Your task to perform on an android device: turn pop-ups off in chrome Image 0: 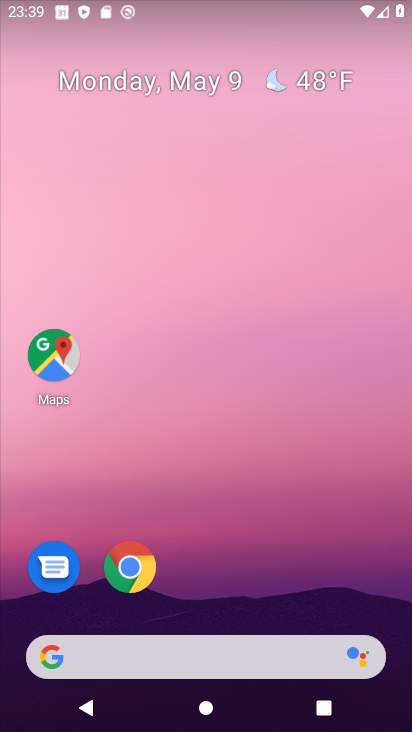
Step 0: click (128, 565)
Your task to perform on an android device: turn pop-ups off in chrome Image 1: 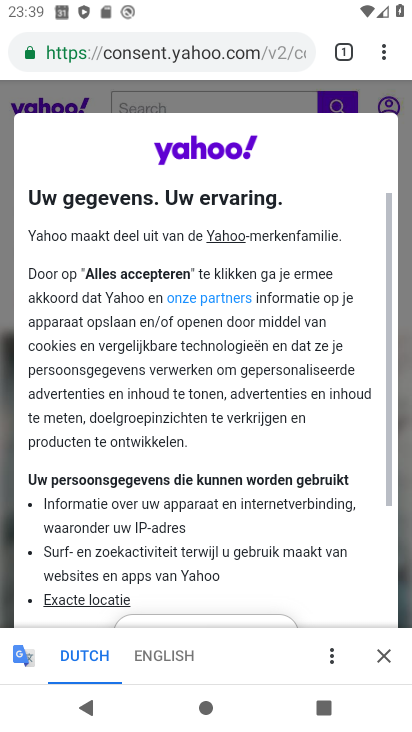
Step 1: click (385, 54)
Your task to perform on an android device: turn pop-ups off in chrome Image 2: 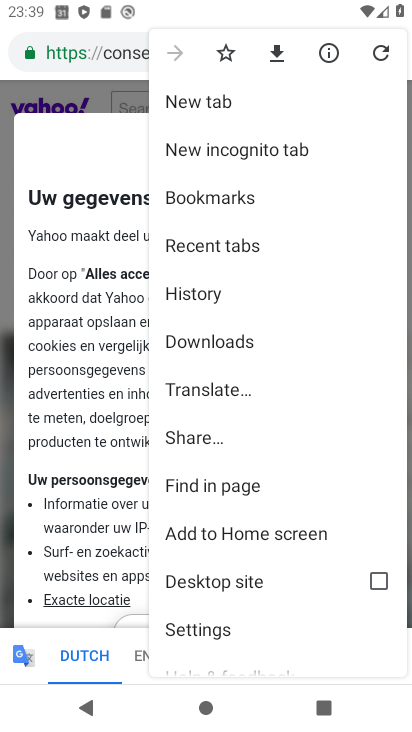
Step 2: click (190, 627)
Your task to perform on an android device: turn pop-ups off in chrome Image 3: 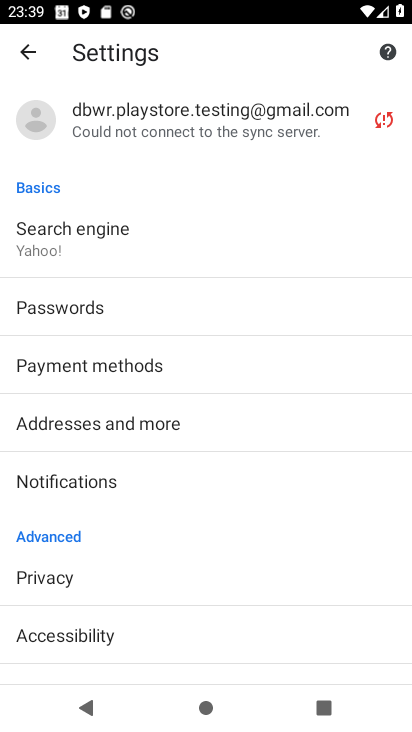
Step 3: drag from (153, 456) to (187, 349)
Your task to perform on an android device: turn pop-ups off in chrome Image 4: 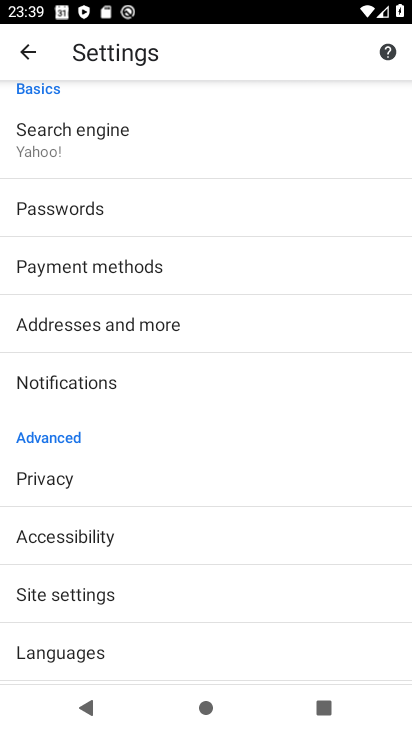
Step 4: drag from (119, 534) to (157, 414)
Your task to perform on an android device: turn pop-ups off in chrome Image 5: 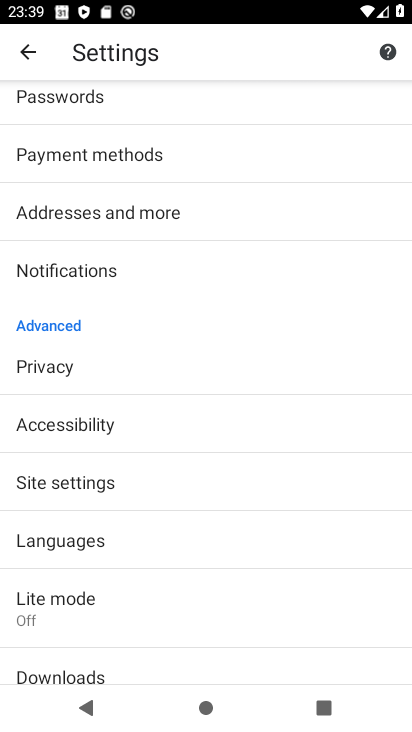
Step 5: drag from (108, 531) to (180, 401)
Your task to perform on an android device: turn pop-ups off in chrome Image 6: 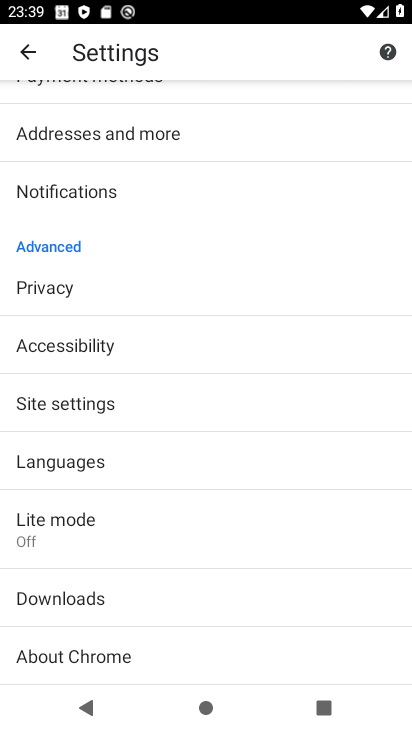
Step 6: click (105, 401)
Your task to perform on an android device: turn pop-ups off in chrome Image 7: 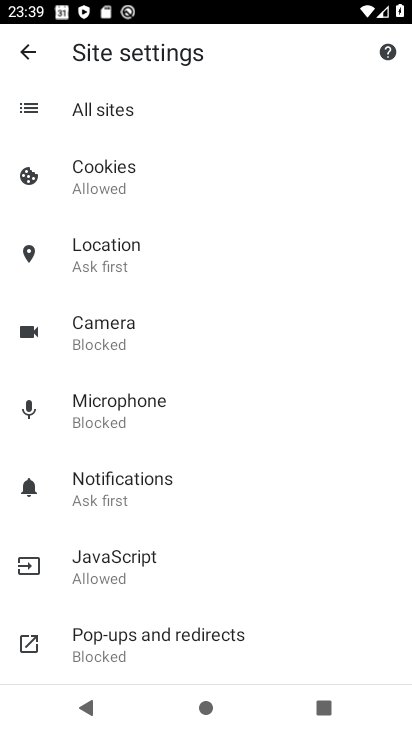
Step 7: drag from (163, 520) to (209, 420)
Your task to perform on an android device: turn pop-ups off in chrome Image 8: 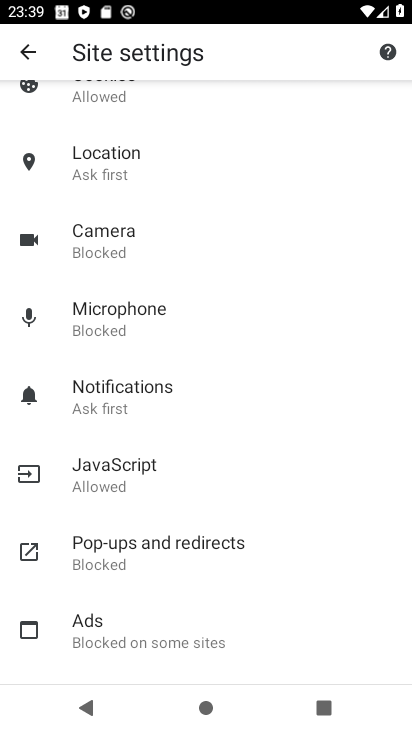
Step 8: click (143, 541)
Your task to perform on an android device: turn pop-ups off in chrome Image 9: 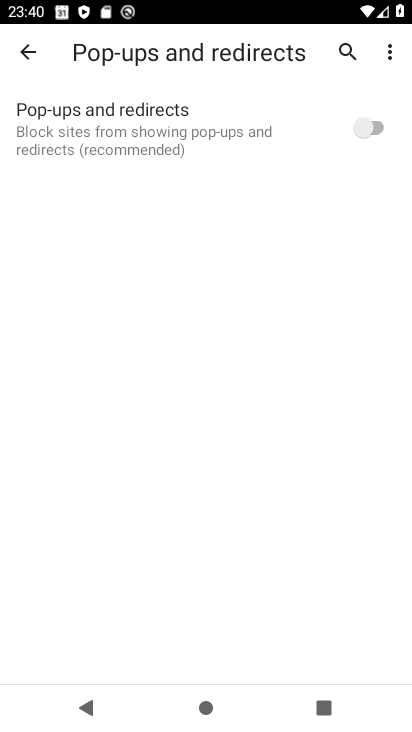
Step 9: task complete